Your task to perform on an android device: find which apps use the phone's location Image 0: 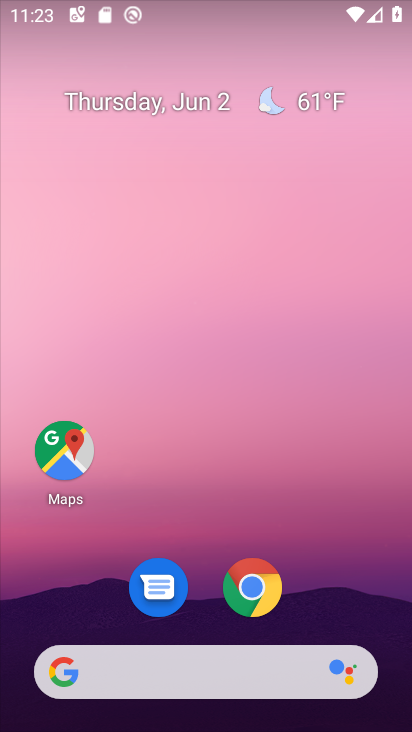
Step 0: drag from (226, 526) to (244, 9)
Your task to perform on an android device: find which apps use the phone's location Image 1: 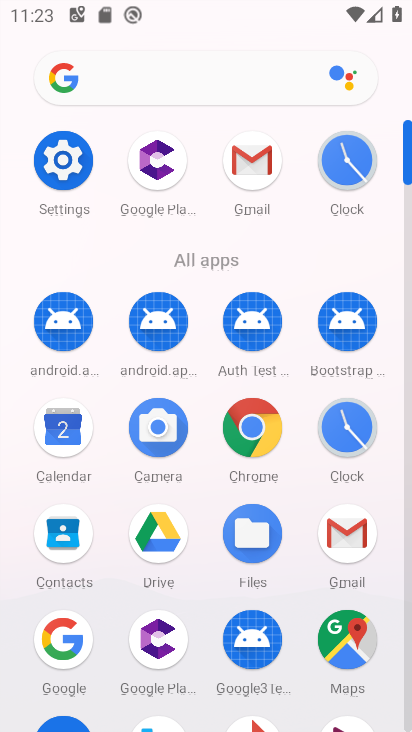
Step 1: click (63, 166)
Your task to perform on an android device: find which apps use the phone's location Image 2: 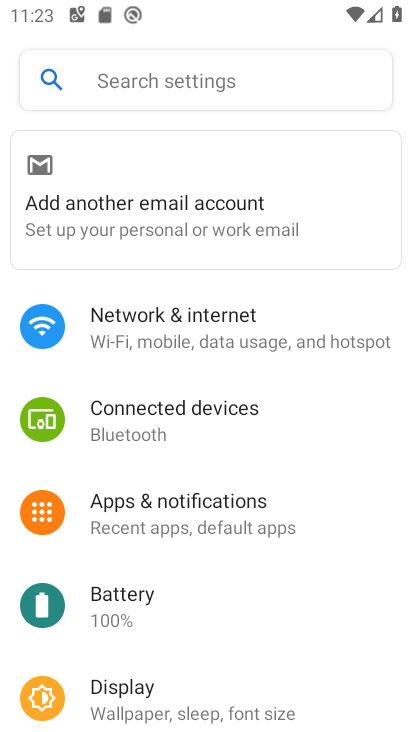
Step 2: drag from (199, 644) to (239, 27)
Your task to perform on an android device: find which apps use the phone's location Image 3: 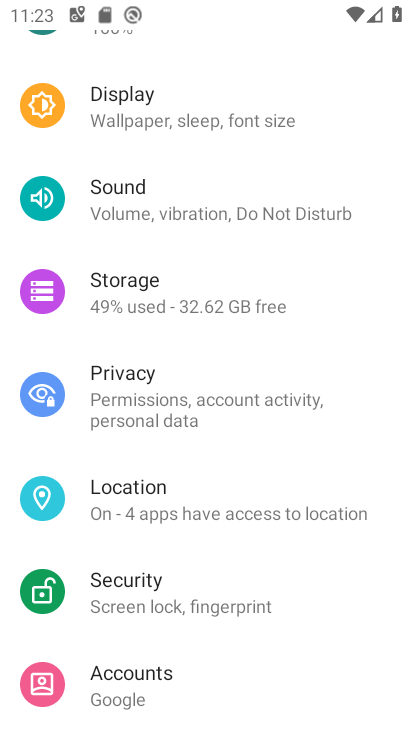
Step 3: click (216, 485)
Your task to perform on an android device: find which apps use the phone's location Image 4: 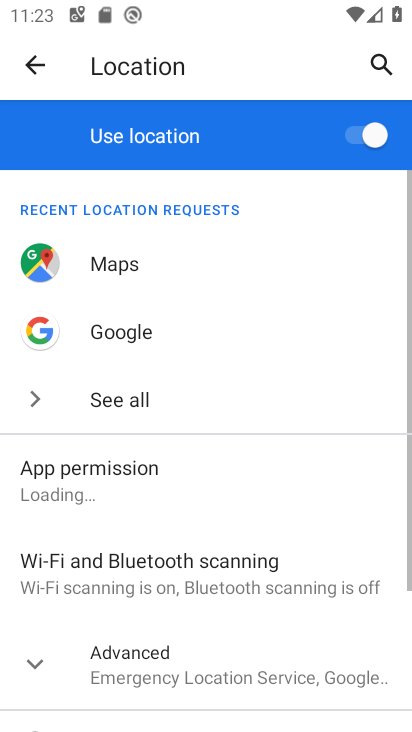
Step 4: click (214, 473)
Your task to perform on an android device: find which apps use the phone's location Image 5: 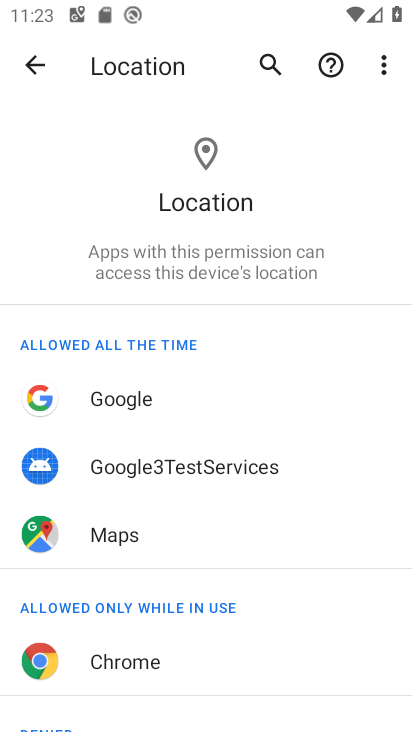
Step 5: task complete